Your task to perform on an android device: find which apps use the phone's location Image 0: 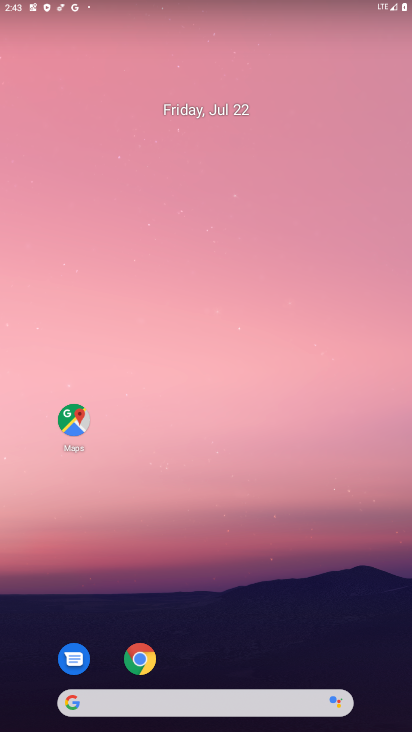
Step 0: click (151, 389)
Your task to perform on an android device: find which apps use the phone's location Image 1: 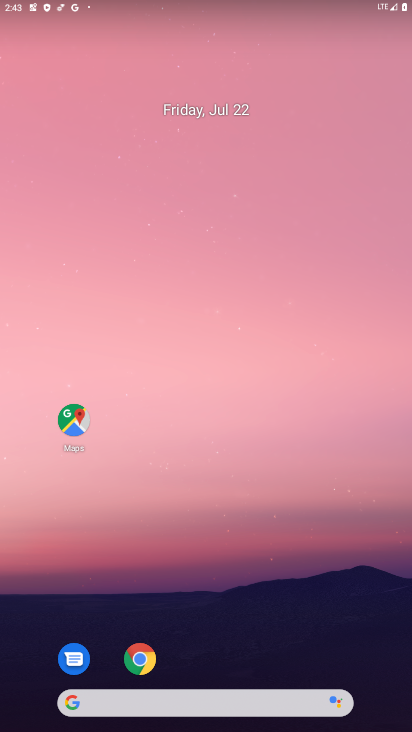
Step 1: drag from (173, 497) to (196, 118)
Your task to perform on an android device: find which apps use the phone's location Image 2: 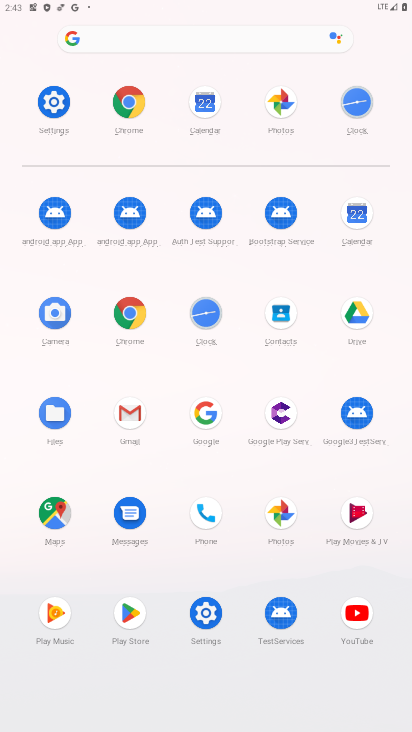
Step 2: click (54, 102)
Your task to perform on an android device: find which apps use the phone's location Image 3: 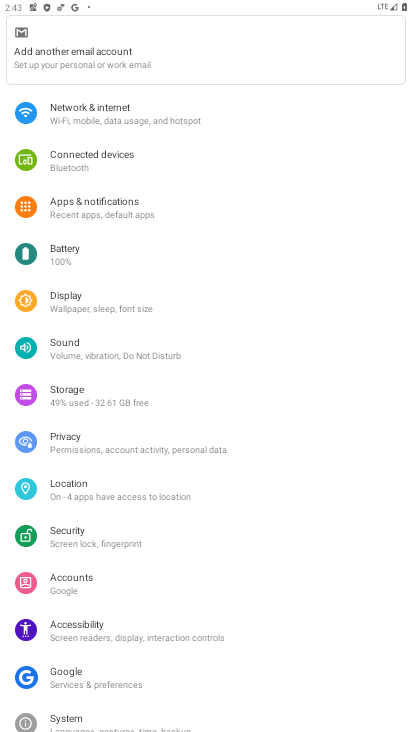
Step 3: click (58, 484)
Your task to perform on an android device: find which apps use the phone's location Image 4: 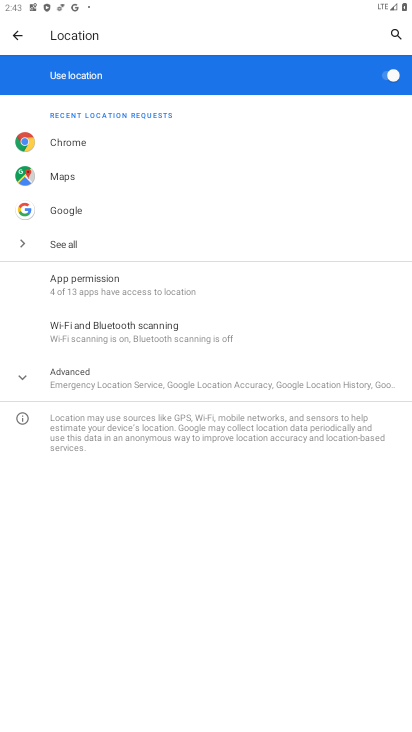
Step 4: click (72, 288)
Your task to perform on an android device: find which apps use the phone's location Image 5: 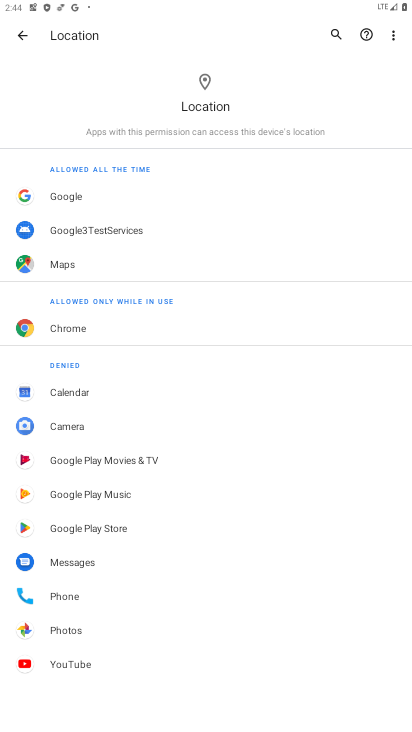
Step 5: task complete